Your task to perform on an android device: visit the assistant section in the google photos Image 0: 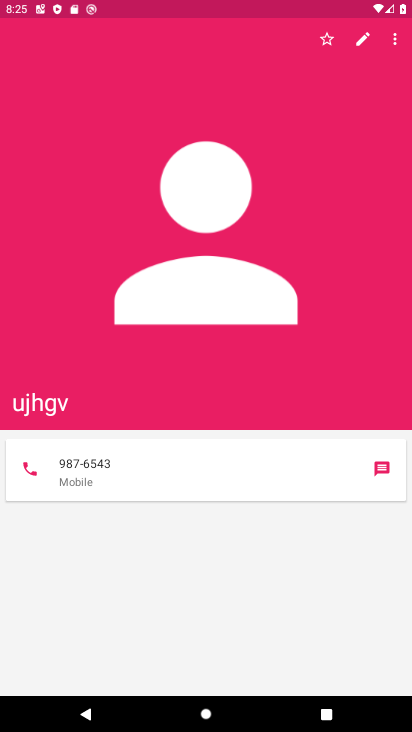
Step 0: press home button
Your task to perform on an android device: visit the assistant section in the google photos Image 1: 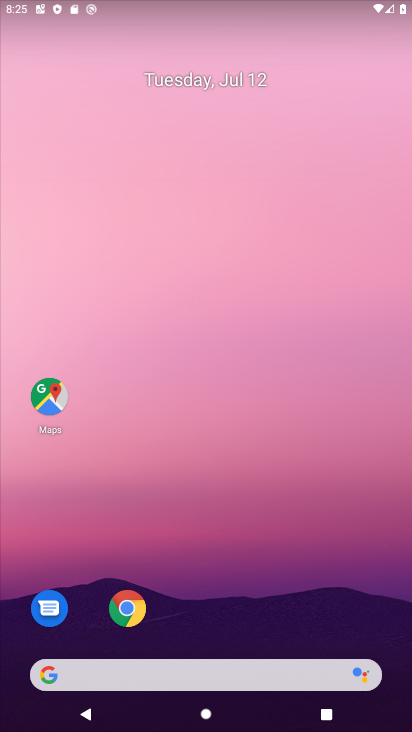
Step 1: drag from (167, 629) to (288, 23)
Your task to perform on an android device: visit the assistant section in the google photos Image 2: 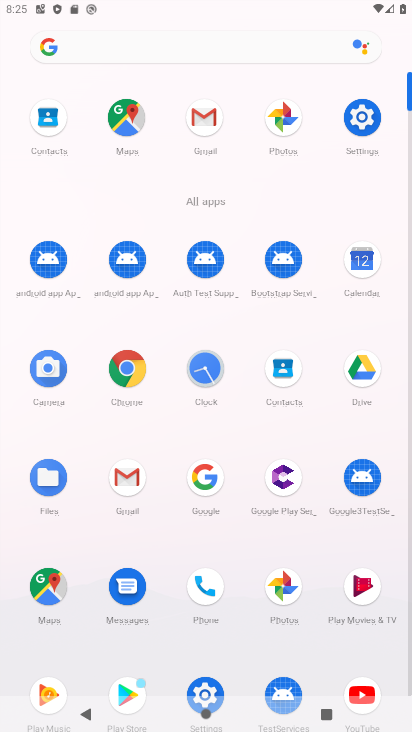
Step 2: click (292, 105)
Your task to perform on an android device: visit the assistant section in the google photos Image 3: 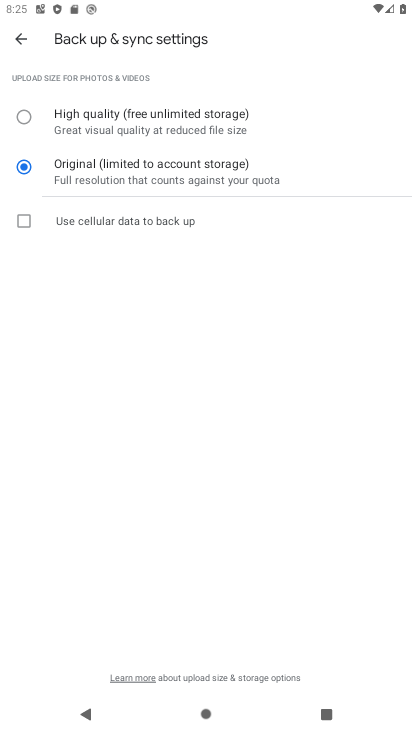
Step 3: click (17, 39)
Your task to perform on an android device: visit the assistant section in the google photos Image 4: 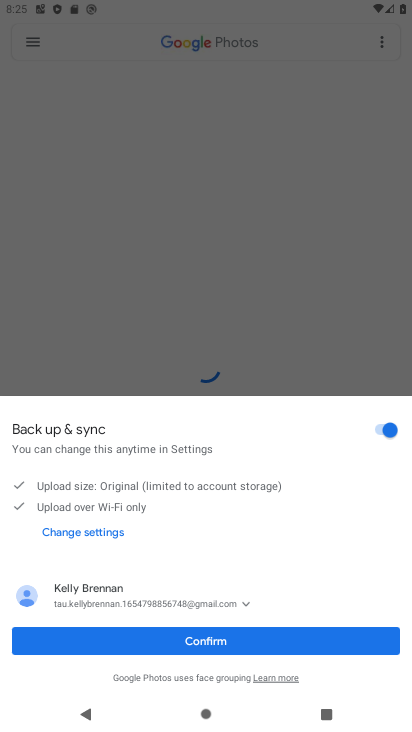
Step 4: click (189, 328)
Your task to perform on an android device: visit the assistant section in the google photos Image 5: 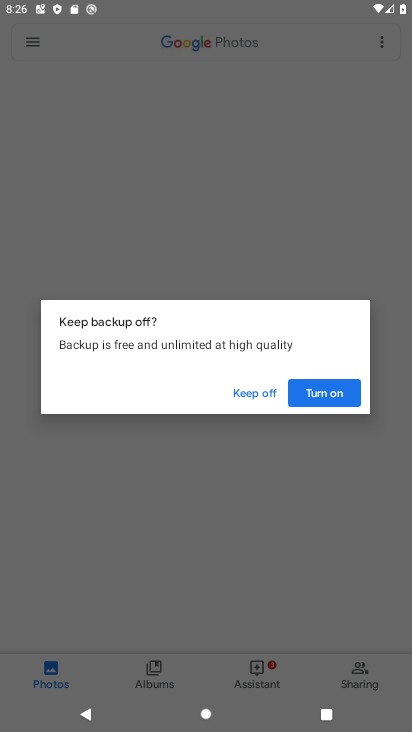
Step 5: click (260, 394)
Your task to perform on an android device: visit the assistant section in the google photos Image 6: 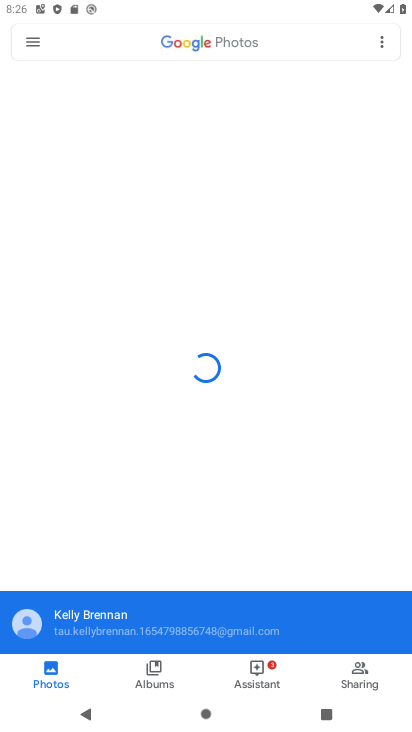
Step 6: click (268, 668)
Your task to perform on an android device: visit the assistant section in the google photos Image 7: 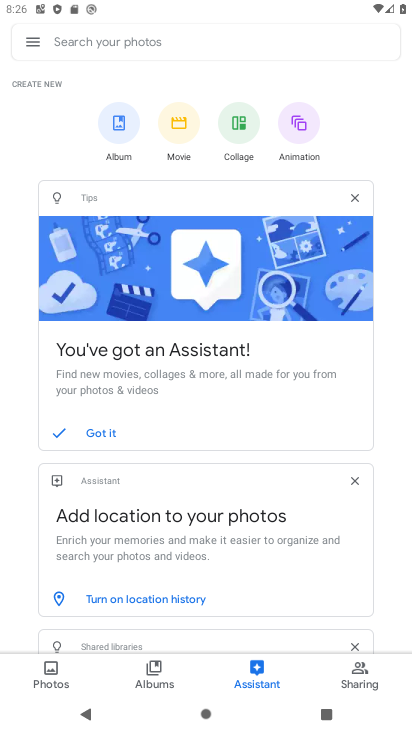
Step 7: task complete